Your task to perform on an android device: open chrome and create a bookmark for the current page Image 0: 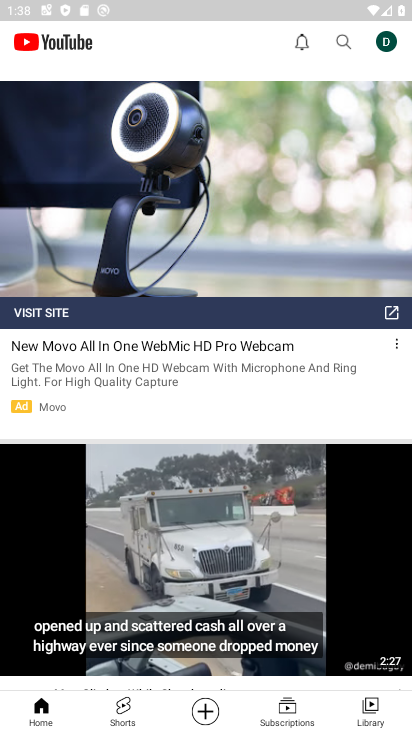
Step 0: press home button
Your task to perform on an android device: open chrome and create a bookmark for the current page Image 1: 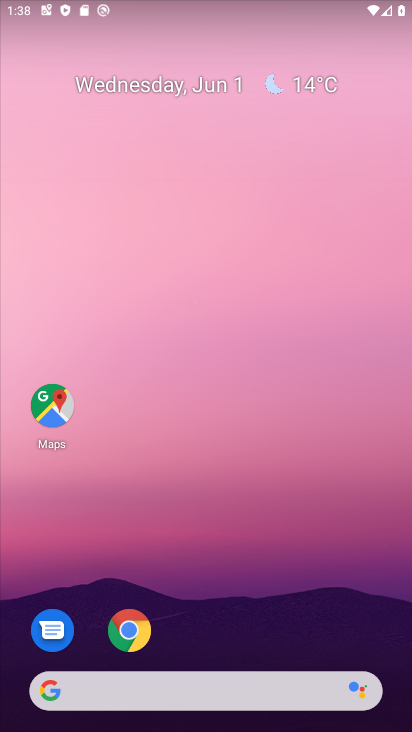
Step 1: click (127, 628)
Your task to perform on an android device: open chrome and create a bookmark for the current page Image 2: 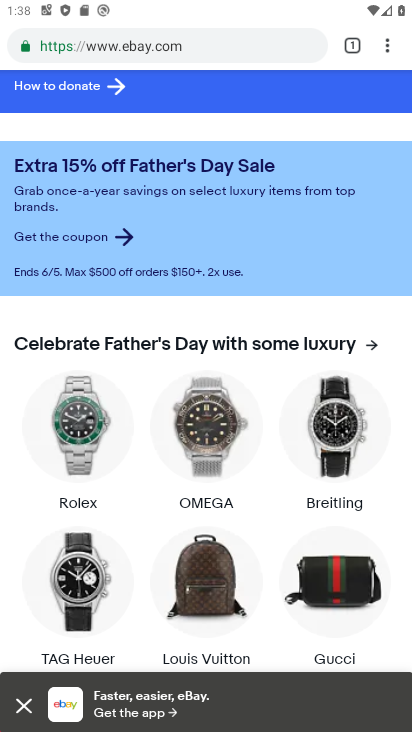
Step 2: click (389, 39)
Your task to perform on an android device: open chrome and create a bookmark for the current page Image 3: 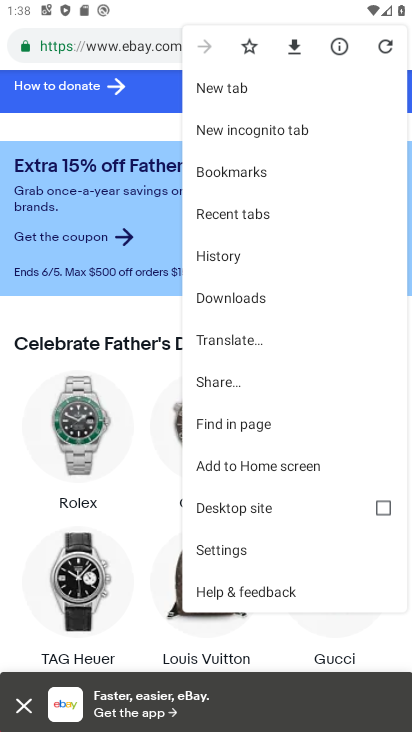
Step 3: click (268, 165)
Your task to perform on an android device: open chrome and create a bookmark for the current page Image 4: 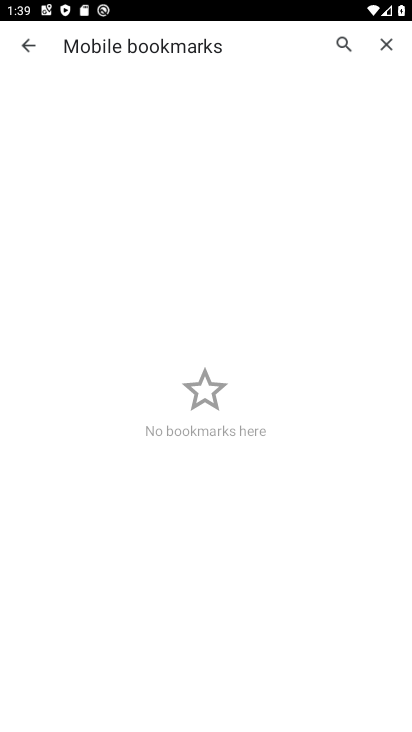
Step 4: task complete